Your task to perform on an android device: toggle show notifications on the lock screen Image 0: 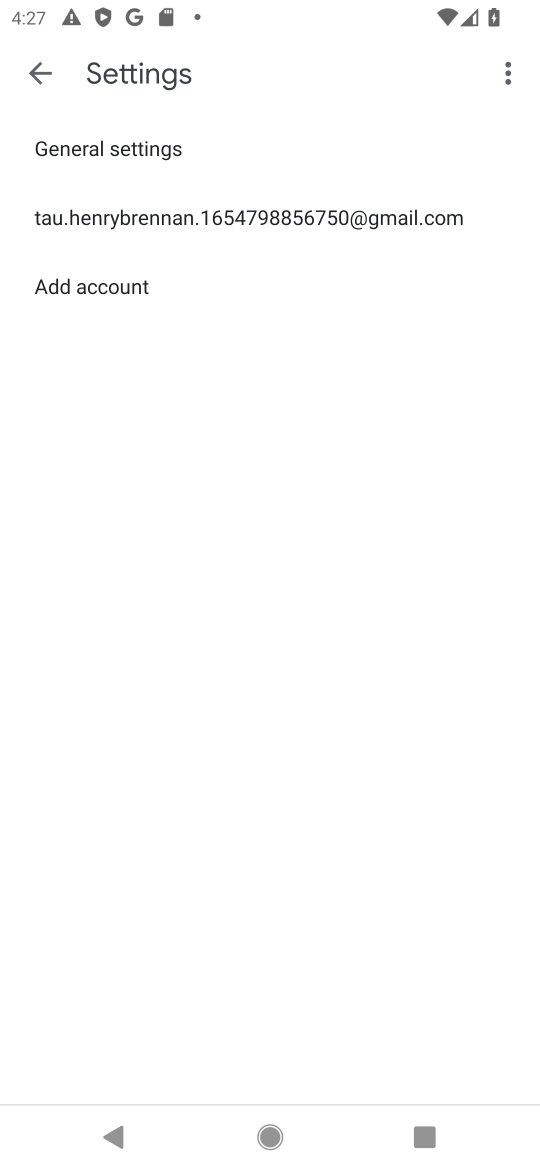
Step 0: press home button
Your task to perform on an android device: toggle show notifications on the lock screen Image 1: 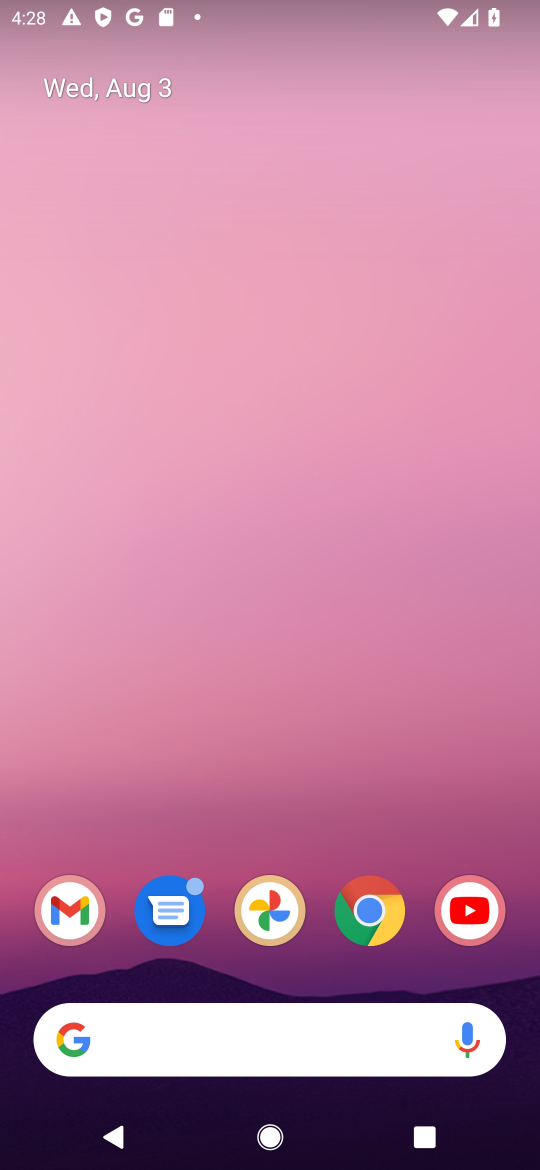
Step 1: drag from (55, 1124) to (371, 1)
Your task to perform on an android device: toggle show notifications on the lock screen Image 2: 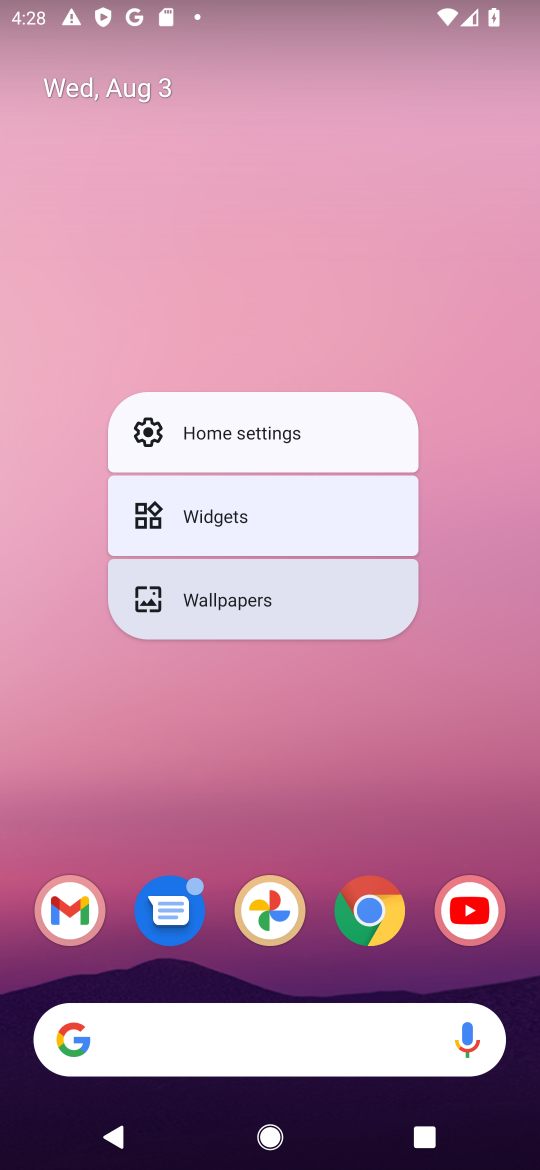
Step 2: drag from (45, 1135) to (388, 125)
Your task to perform on an android device: toggle show notifications on the lock screen Image 3: 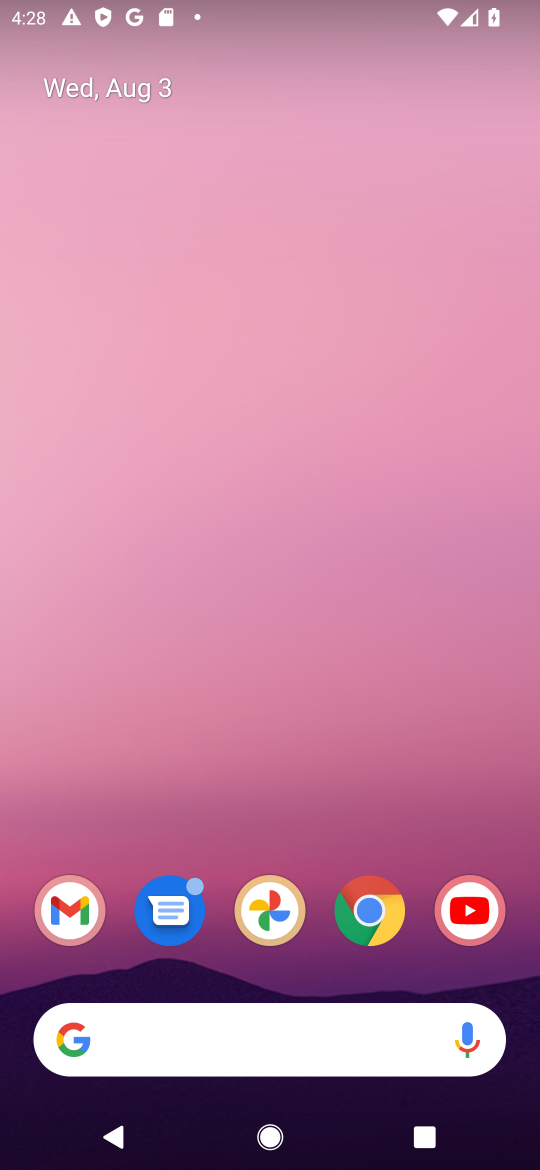
Step 3: drag from (90, 963) to (292, 46)
Your task to perform on an android device: toggle show notifications on the lock screen Image 4: 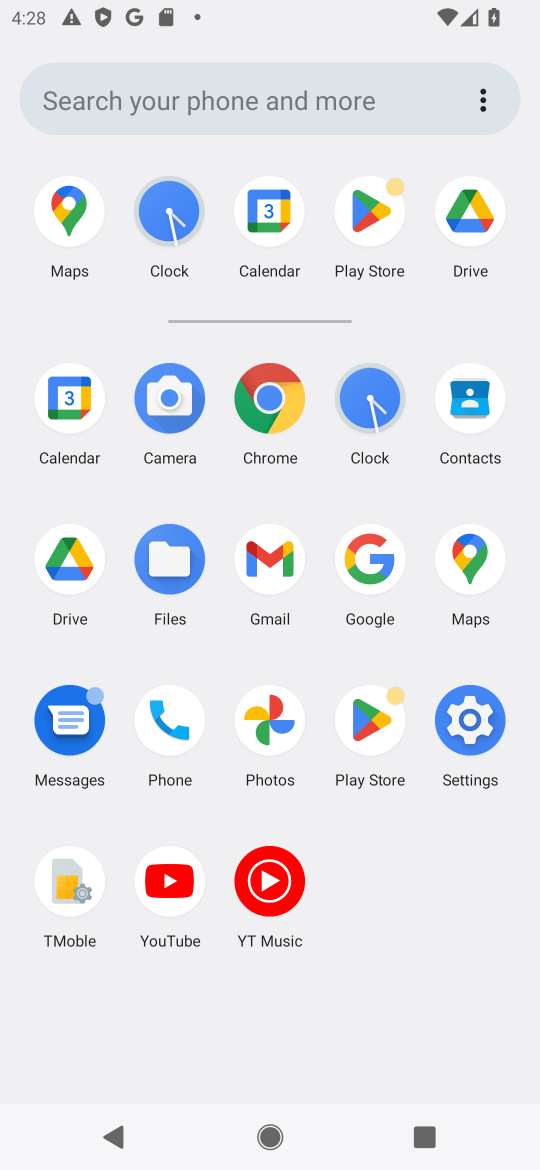
Step 4: click (464, 741)
Your task to perform on an android device: toggle show notifications on the lock screen Image 5: 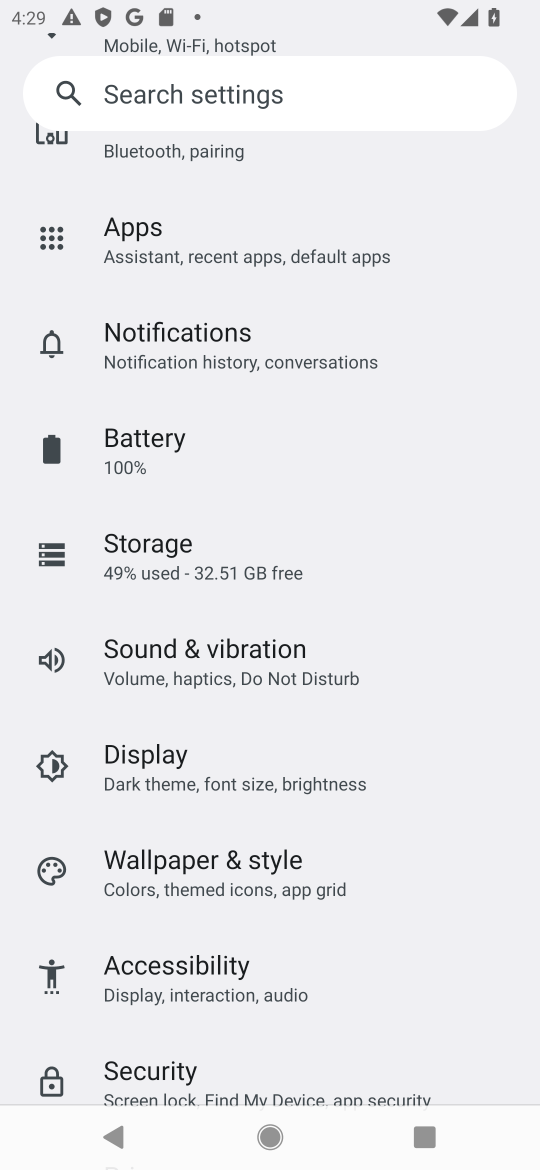
Step 5: click (209, 348)
Your task to perform on an android device: toggle show notifications on the lock screen Image 6: 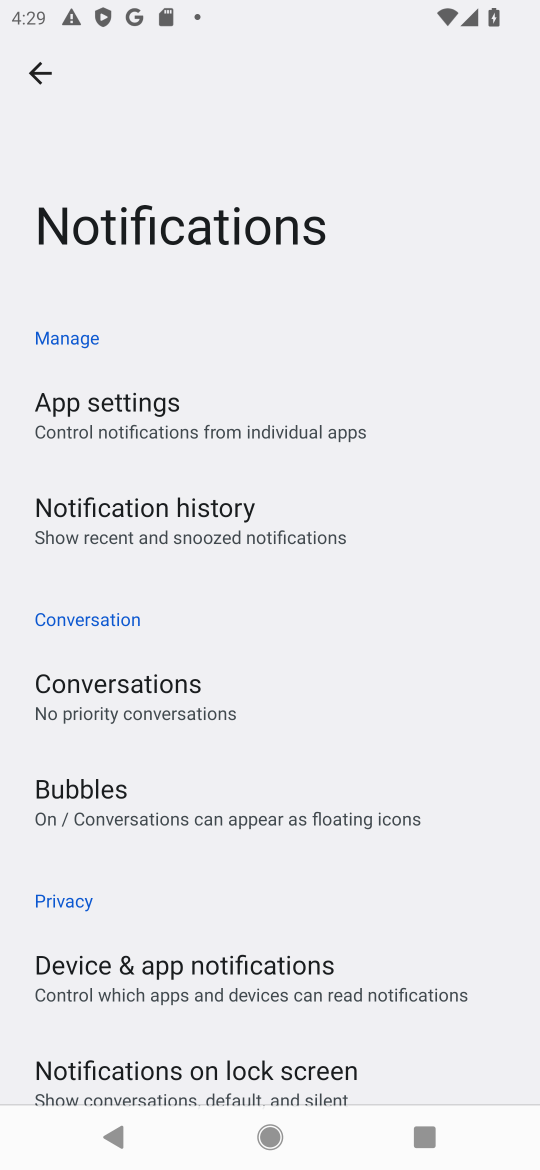
Step 6: click (178, 1072)
Your task to perform on an android device: toggle show notifications on the lock screen Image 7: 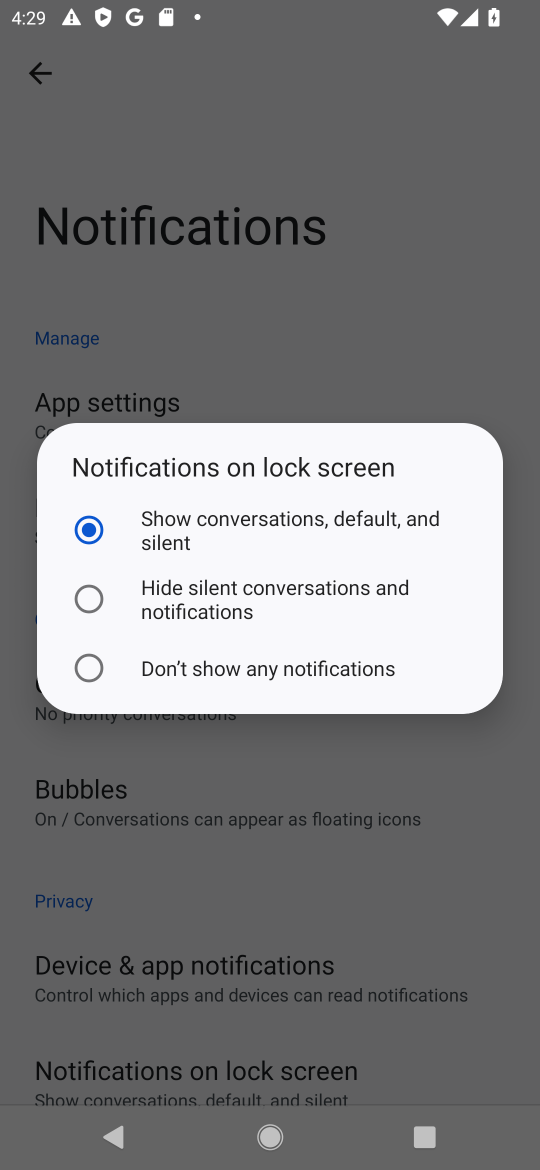
Step 7: task complete